Your task to perform on an android device: move a message to another label in the gmail app Image 0: 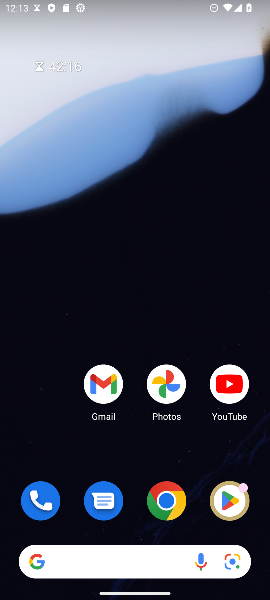
Step 0: click (121, 521)
Your task to perform on an android device: move a message to another label in the gmail app Image 1: 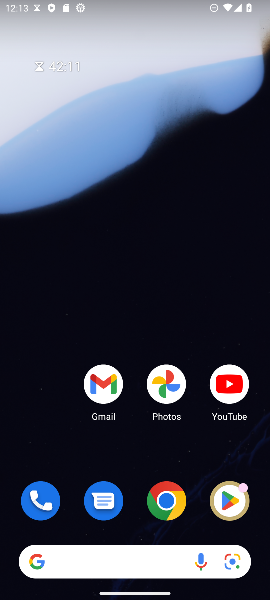
Step 1: click (102, 390)
Your task to perform on an android device: move a message to another label in the gmail app Image 2: 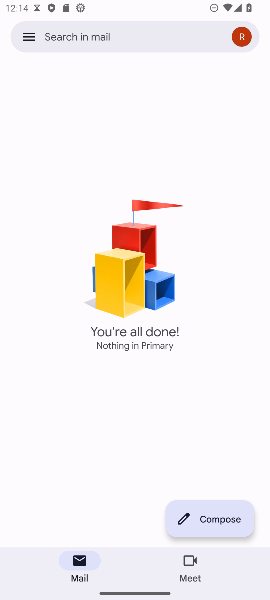
Step 2: click (32, 37)
Your task to perform on an android device: move a message to another label in the gmail app Image 3: 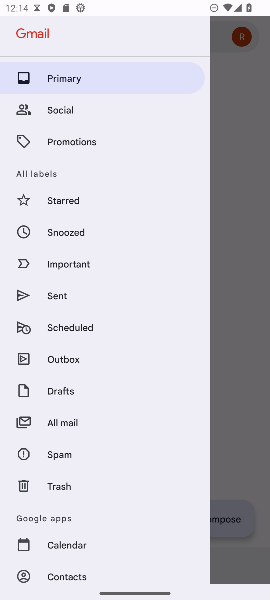
Step 3: click (61, 422)
Your task to perform on an android device: move a message to another label in the gmail app Image 4: 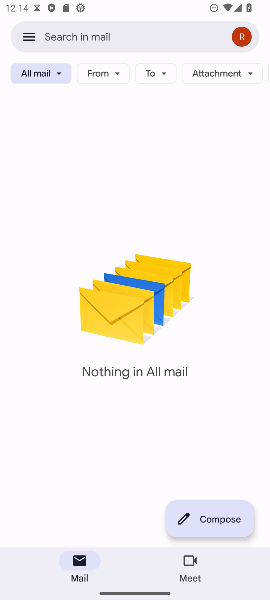
Step 4: task complete